Your task to perform on an android device: Find coffee shops on Maps Image 0: 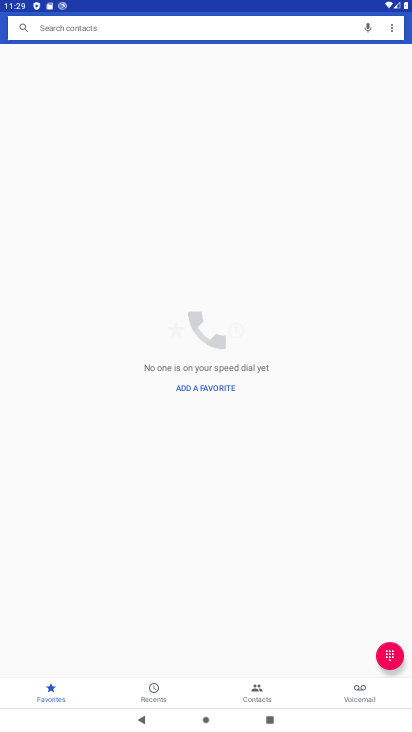
Step 0: press home button
Your task to perform on an android device: Find coffee shops on Maps Image 1: 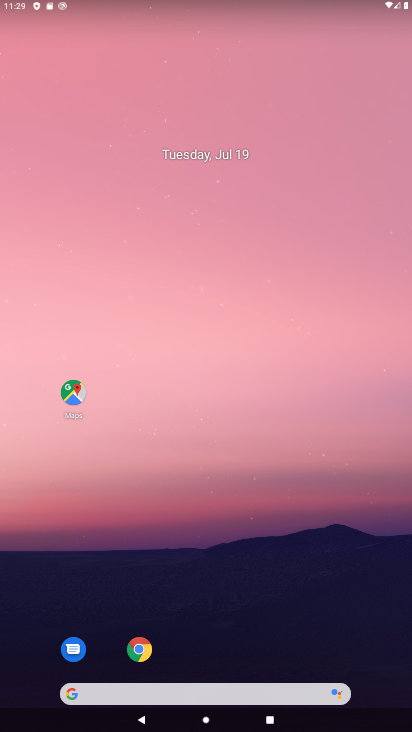
Step 1: click (78, 394)
Your task to perform on an android device: Find coffee shops on Maps Image 2: 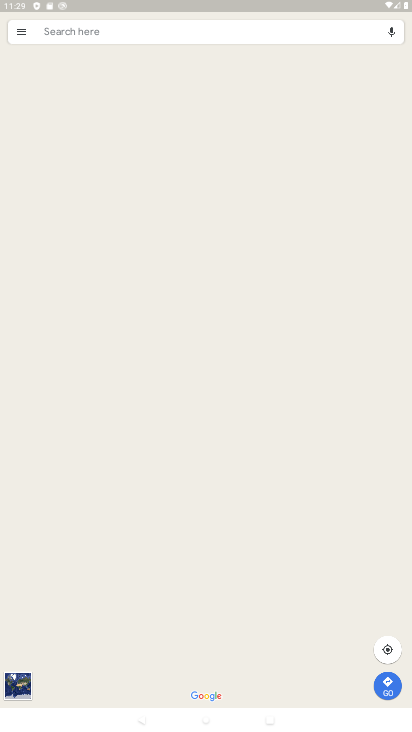
Step 2: click (112, 28)
Your task to perform on an android device: Find coffee shops on Maps Image 3: 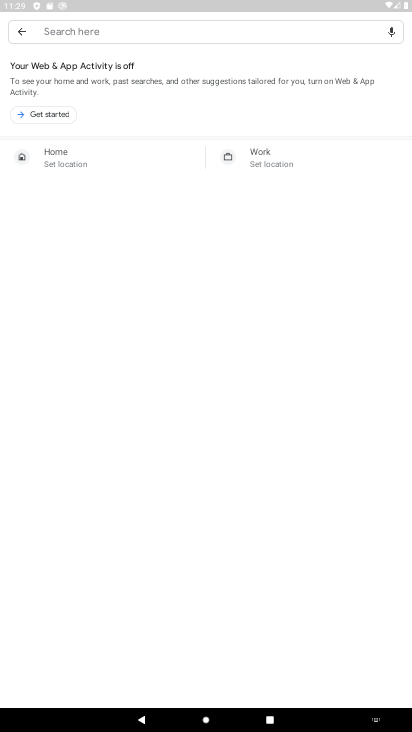
Step 3: type "coffee shops"
Your task to perform on an android device: Find coffee shops on Maps Image 4: 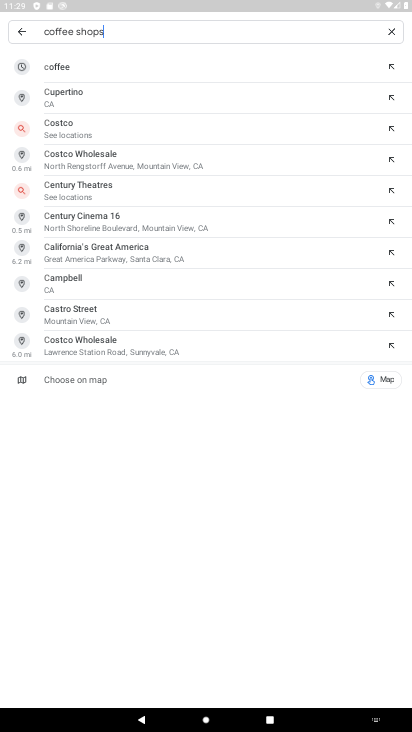
Step 4: press enter
Your task to perform on an android device: Find coffee shops on Maps Image 5: 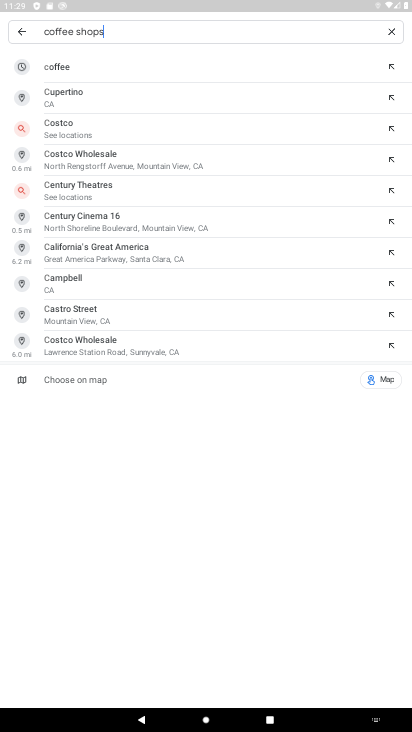
Step 5: type ""
Your task to perform on an android device: Find coffee shops on Maps Image 6: 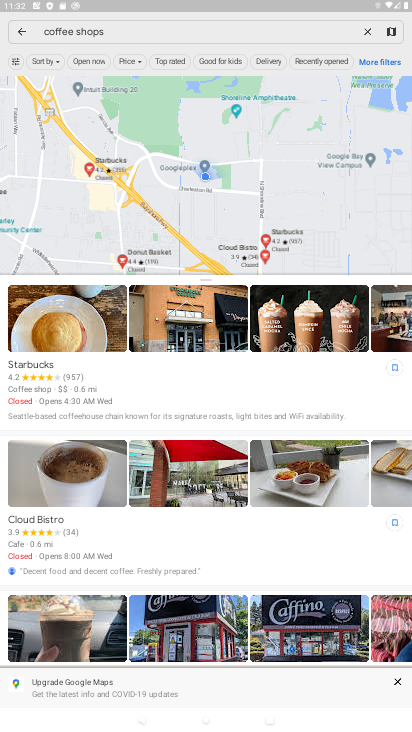
Step 6: task complete